Your task to perform on an android device: turn on notifications settings in the gmail app Image 0: 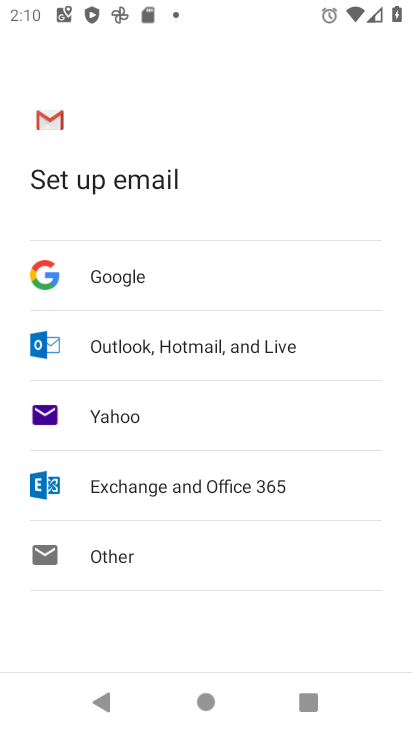
Step 0: press home button
Your task to perform on an android device: turn on notifications settings in the gmail app Image 1: 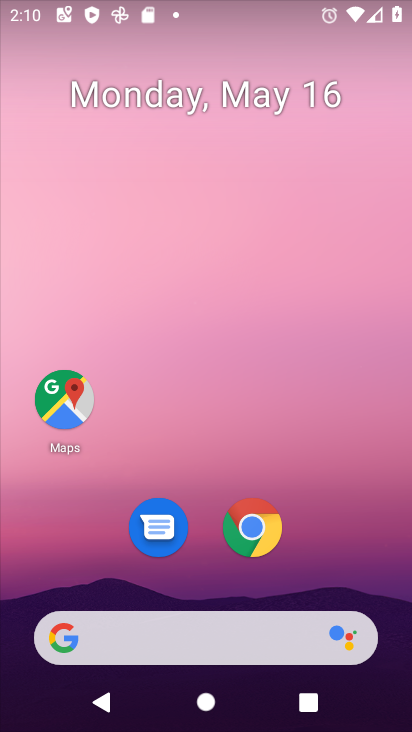
Step 1: drag from (340, 520) to (306, 113)
Your task to perform on an android device: turn on notifications settings in the gmail app Image 2: 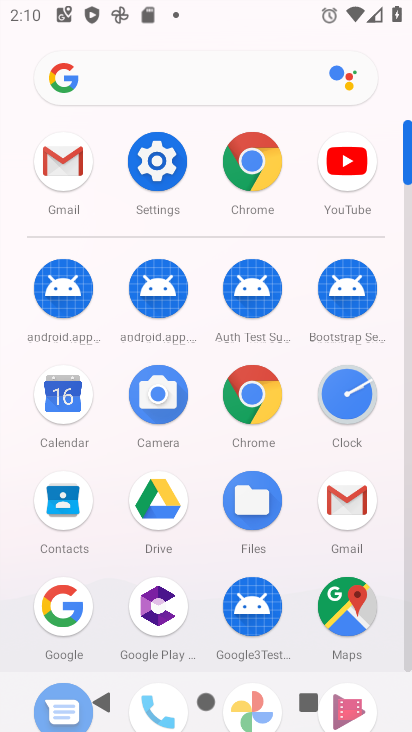
Step 2: click (66, 206)
Your task to perform on an android device: turn on notifications settings in the gmail app Image 3: 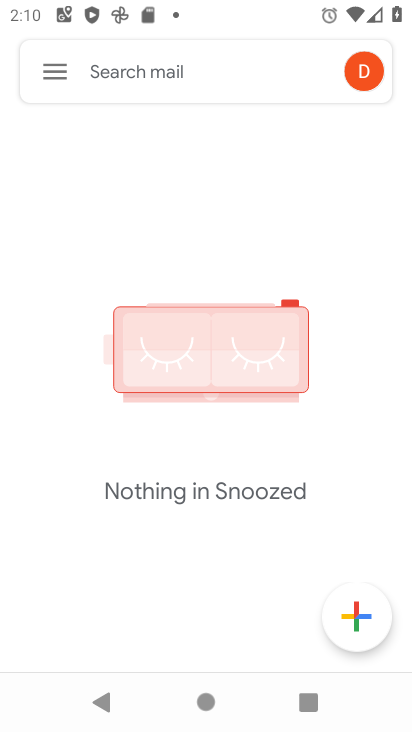
Step 3: click (69, 59)
Your task to perform on an android device: turn on notifications settings in the gmail app Image 4: 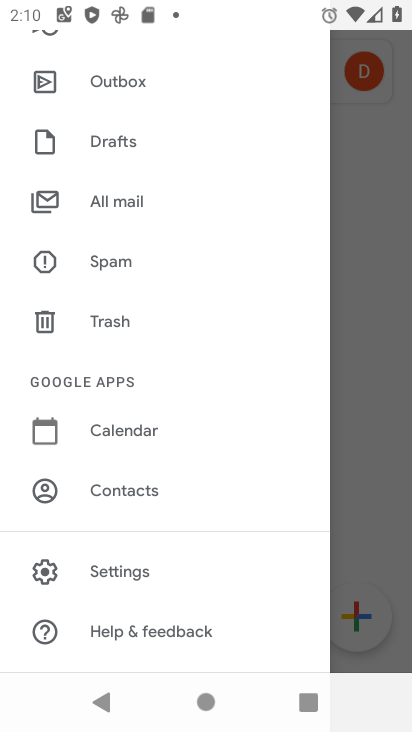
Step 4: click (121, 572)
Your task to perform on an android device: turn on notifications settings in the gmail app Image 5: 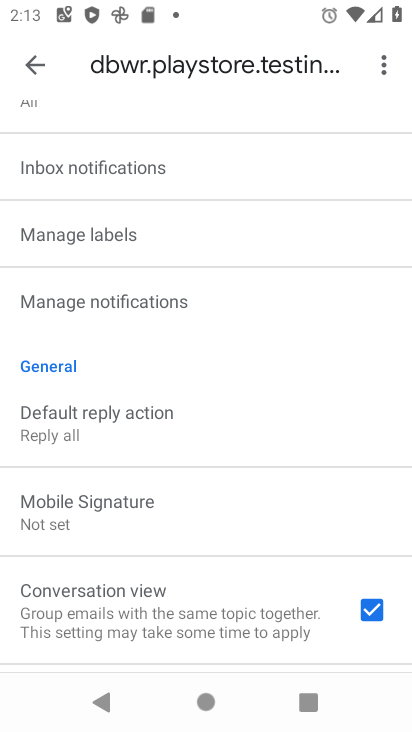
Step 5: click (181, 319)
Your task to perform on an android device: turn on notifications settings in the gmail app Image 6: 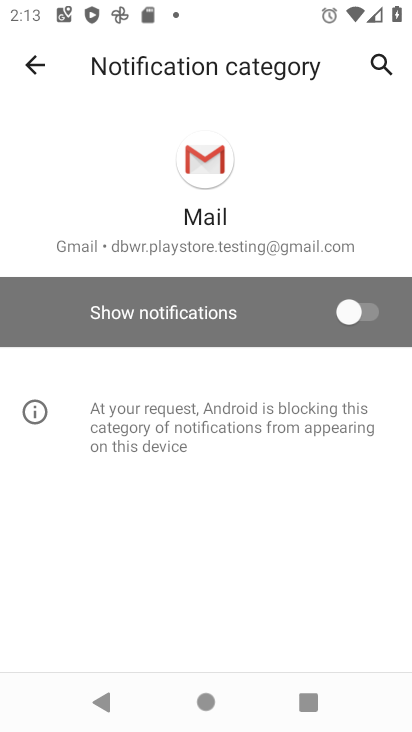
Step 6: click (379, 322)
Your task to perform on an android device: turn on notifications settings in the gmail app Image 7: 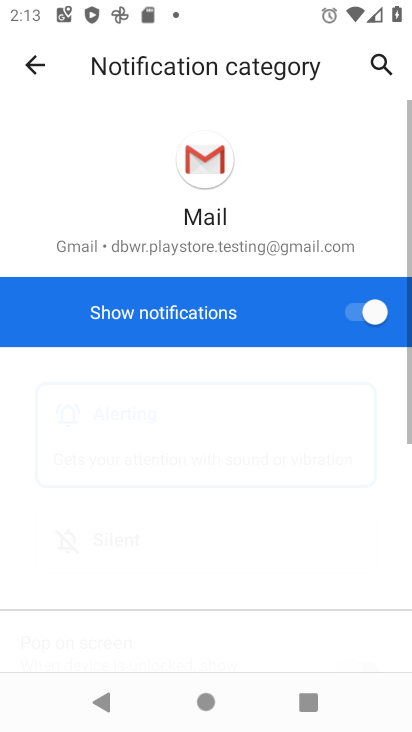
Step 7: task complete